Your task to perform on an android device: What's the weather? Image 0: 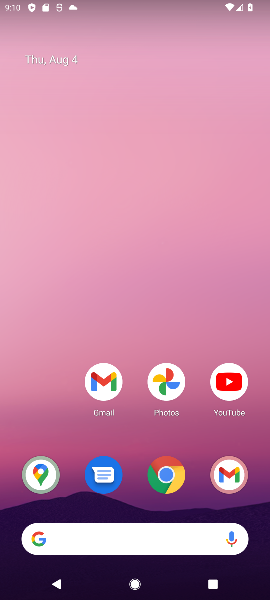
Step 0: drag from (136, 478) to (136, 207)
Your task to perform on an android device: What's the weather? Image 1: 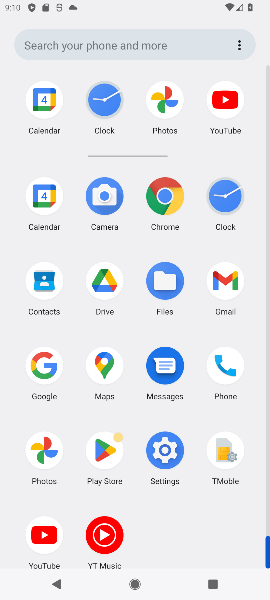
Step 1: drag from (135, 543) to (106, 200)
Your task to perform on an android device: What's the weather? Image 2: 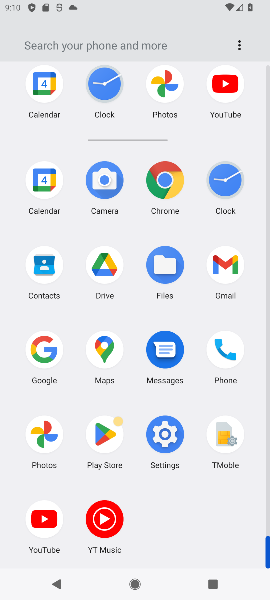
Step 2: drag from (130, 384) to (136, 207)
Your task to perform on an android device: What's the weather? Image 3: 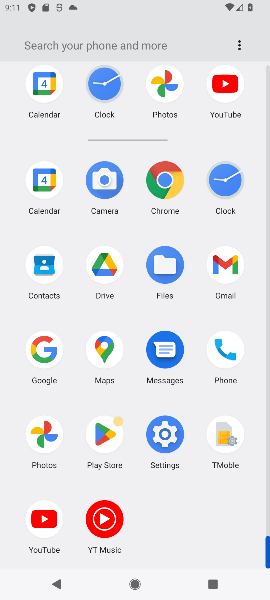
Step 3: click (155, 181)
Your task to perform on an android device: What's the weather? Image 4: 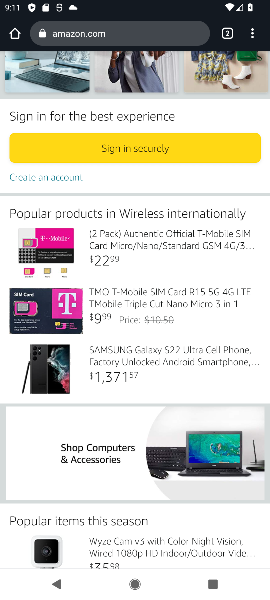
Step 4: click (88, 35)
Your task to perform on an android device: What's the weather? Image 5: 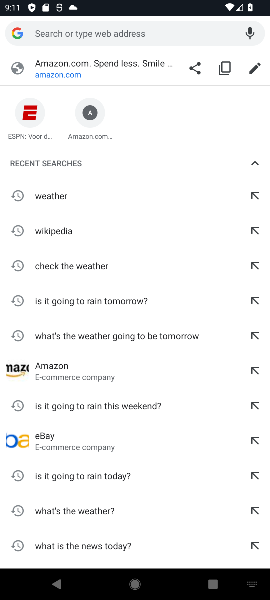
Step 5: click (102, 202)
Your task to perform on an android device: What's the weather? Image 6: 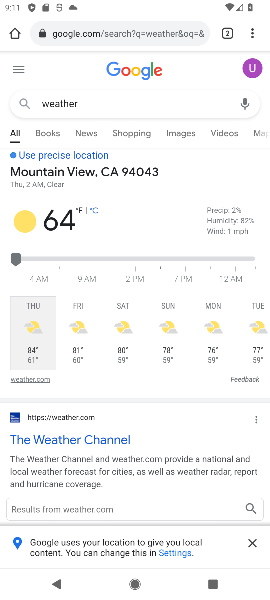
Step 6: task complete